Your task to perform on an android device: Turn on the flashlight Image 0: 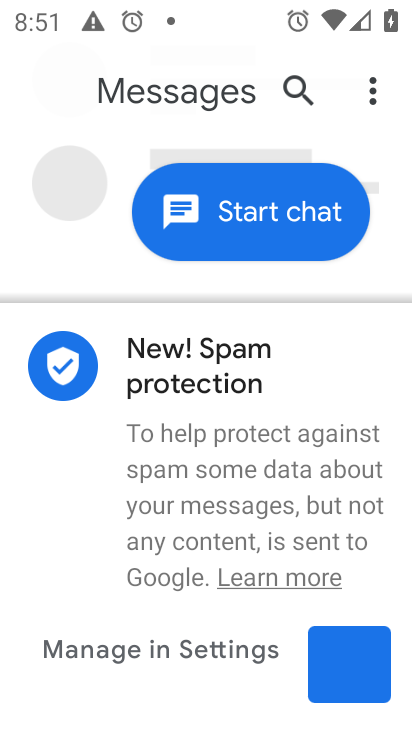
Step 0: press home button
Your task to perform on an android device: Turn on the flashlight Image 1: 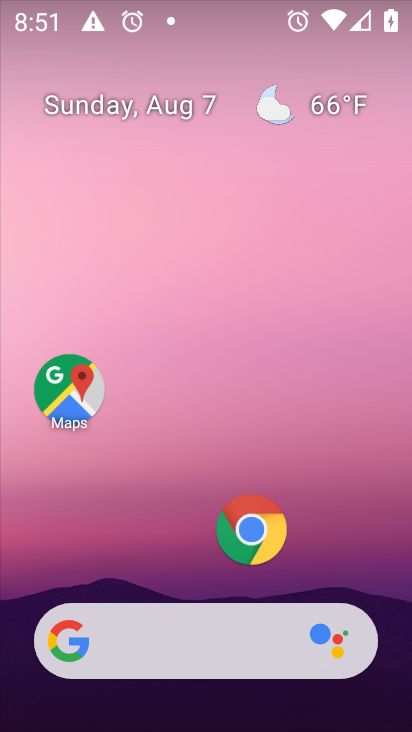
Step 1: drag from (157, 556) to (172, 25)
Your task to perform on an android device: Turn on the flashlight Image 2: 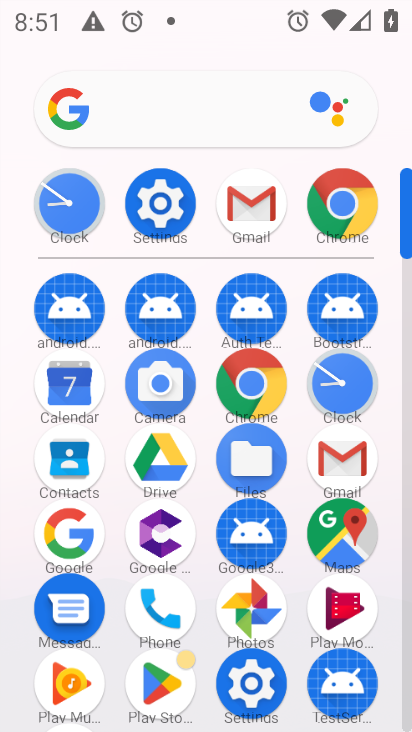
Step 2: click (149, 208)
Your task to perform on an android device: Turn on the flashlight Image 3: 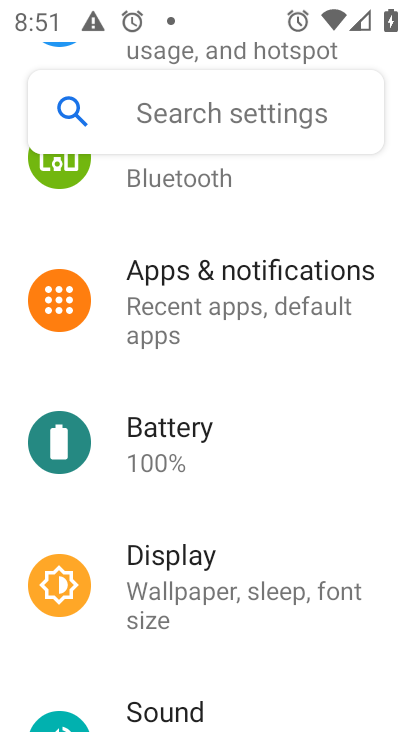
Step 3: click (192, 117)
Your task to perform on an android device: Turn on the flashlight Image 4: 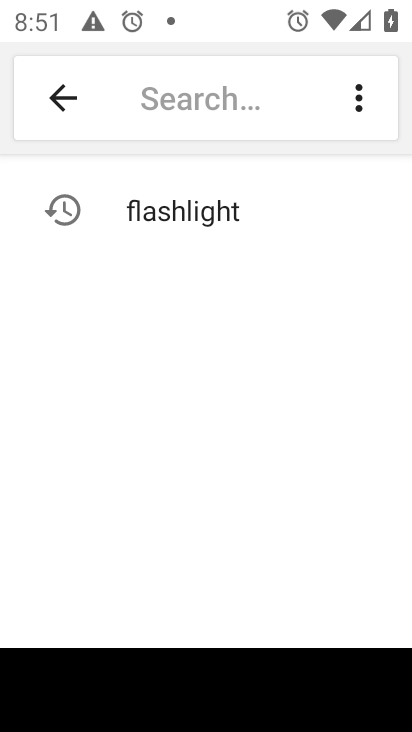
Step 4: type "flas"
Your task to perform on an android device: Turn on the flashlight Image 5: 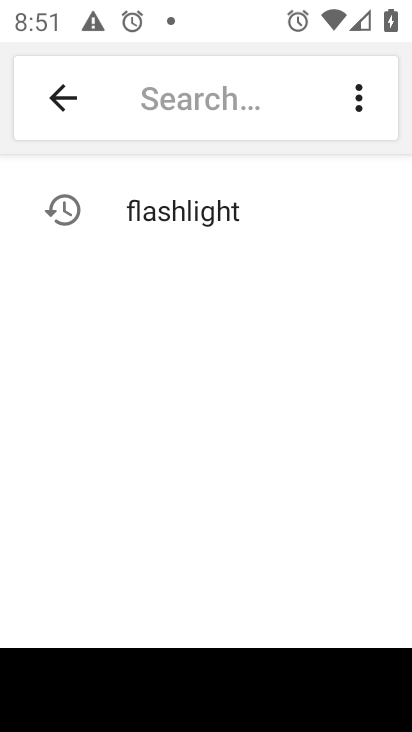
Step 5: click (227, 224)
Your task to perform on an android device: Turn on the flashlight Image 6: 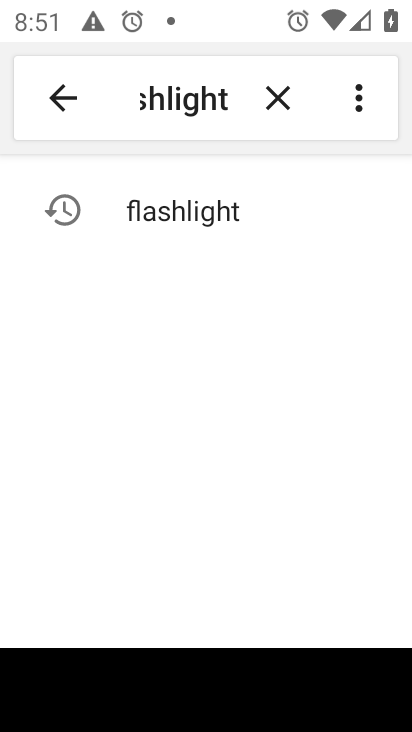
Step 6: click (238, 217)
Your task to perform on an android device: Turn on the flashlight Image 7: 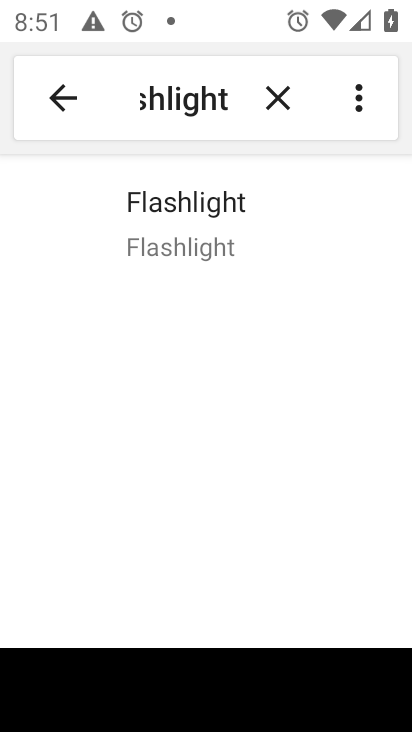
Step 7: task complete